Your task to perform on an android device: check data usage Image 0: 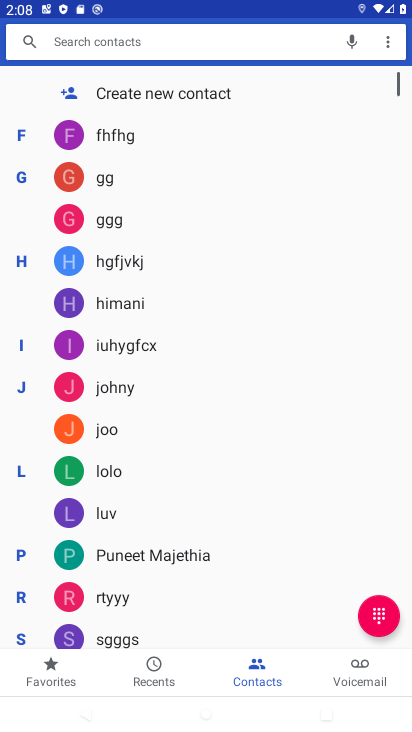
Step 0: press home button
Your task to perform on an android device: check data usage Image 1: 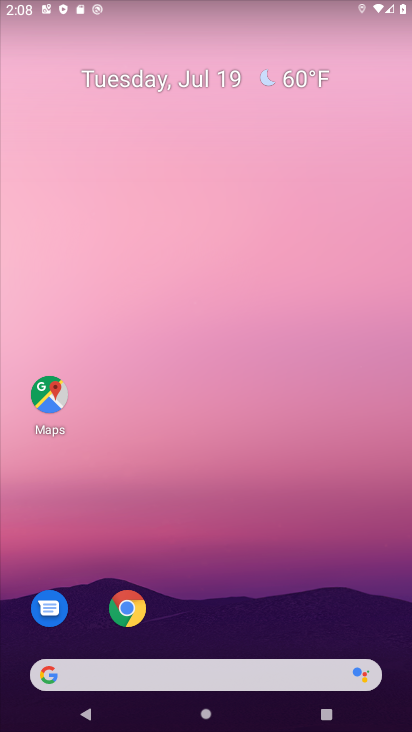
Step 1: drag from (287, 547) to (256, 0)
Your task to perform on an android device: check data usage Image 2: 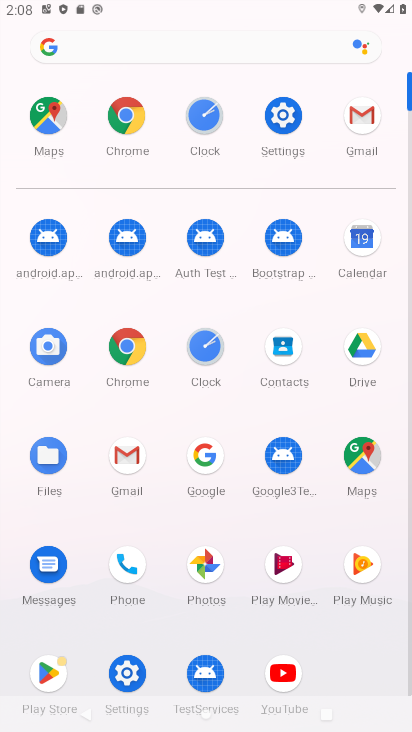
Step 2: click (282, 117)
Your task to perform on an android device: check data usage Image 3: 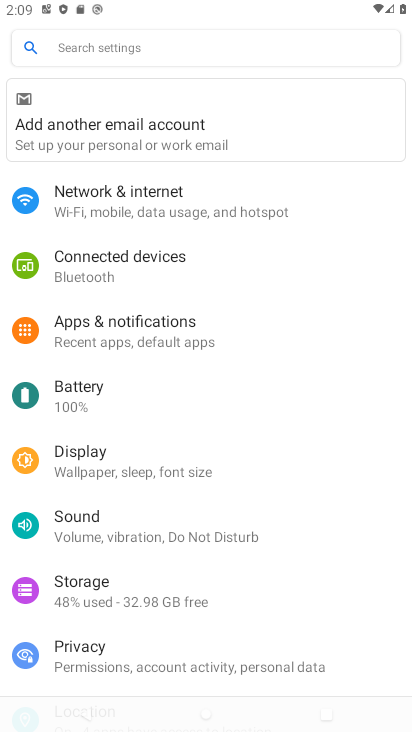
Step 3: click (59, 217)
Your task to perform on an android device: check data usage Image 4: 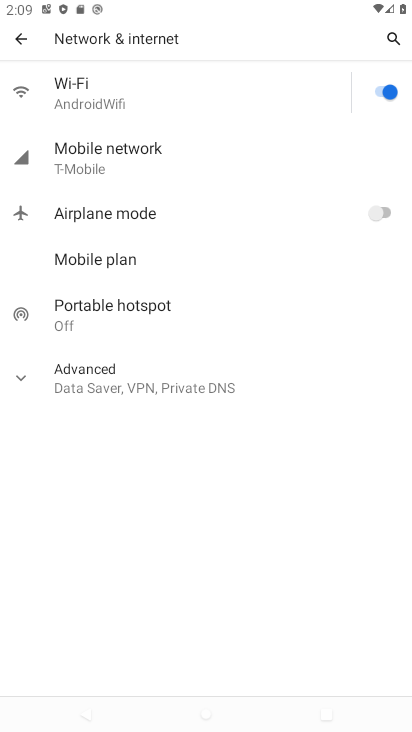
Step 4: click (101, 162)
Your task to perform on an android device: check data usage Image 5: 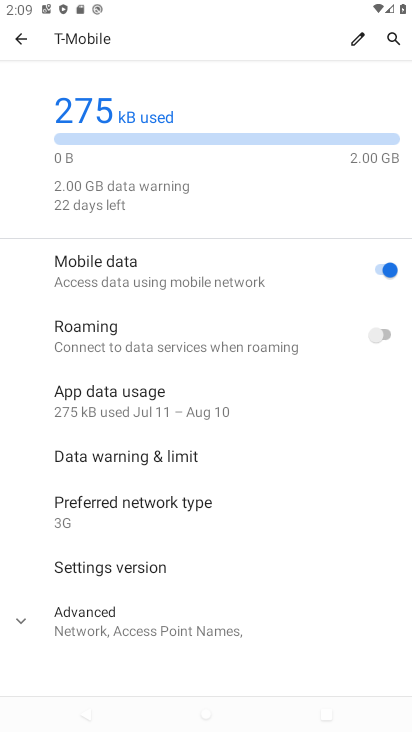
Step 5: task complete